Your task to perform on an android device: Open Yahoo.com Image 0: 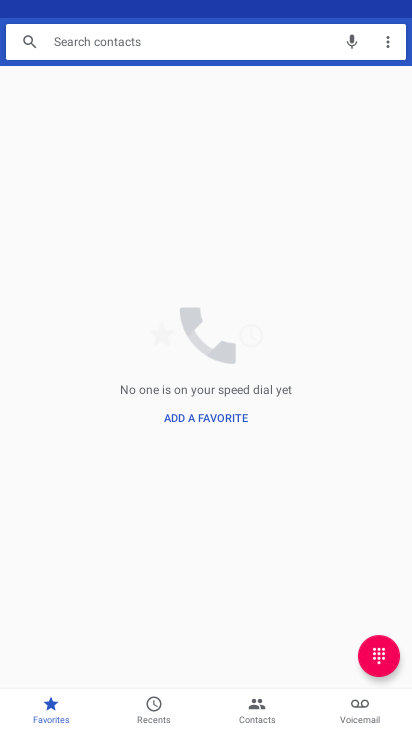
Step 0: press home button
Your task to perform on an android device: Open Yahoo.com Image 1: 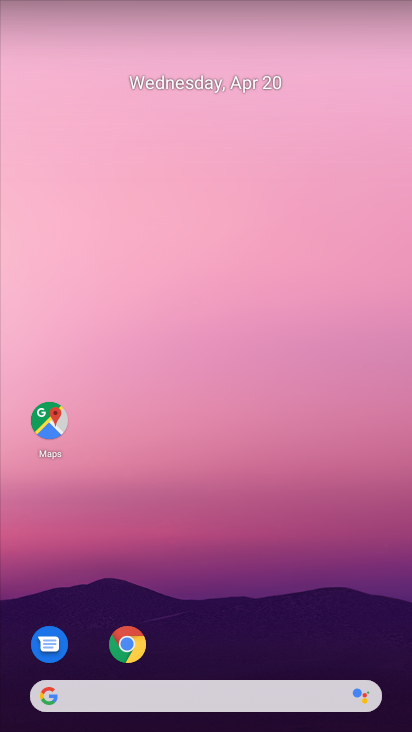
Step 1: click (123, 646)
Your task to perform on an android device: Open Yahoo.com Image 2: 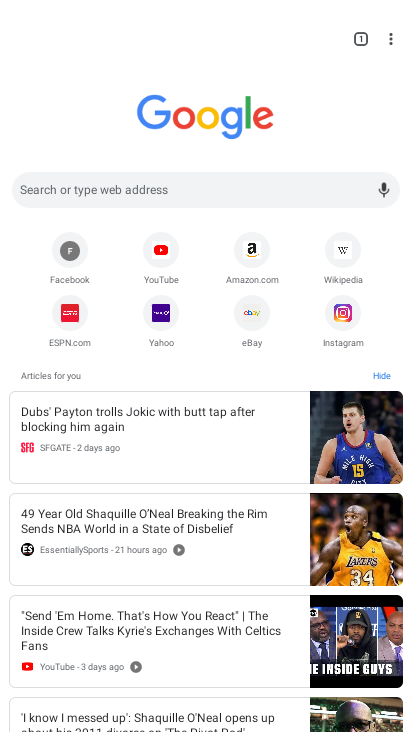
Step 2: click (157, 317)
Your task to perform on an android device: Open Yahoo.com Image 3: 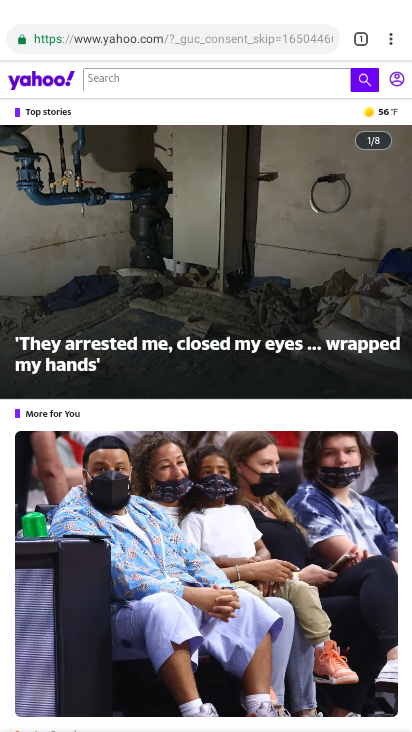
Step 3: task complete